Your task to perform on an android device: Toggle the flashlight Image 0: 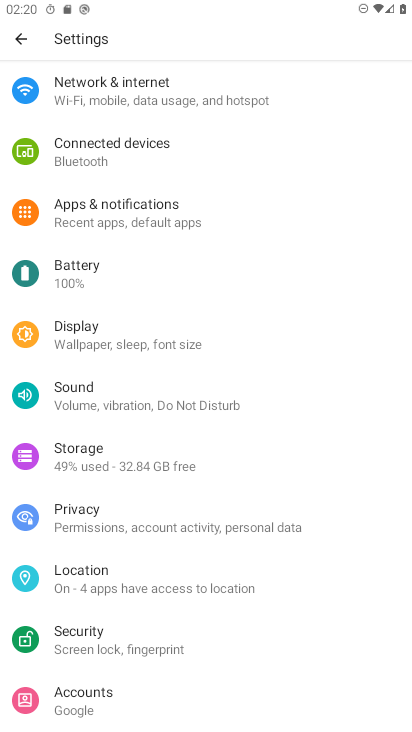
Step 0: click (89, 326)
Your task to perform on an android device: Toggle the flashlight Image 1: 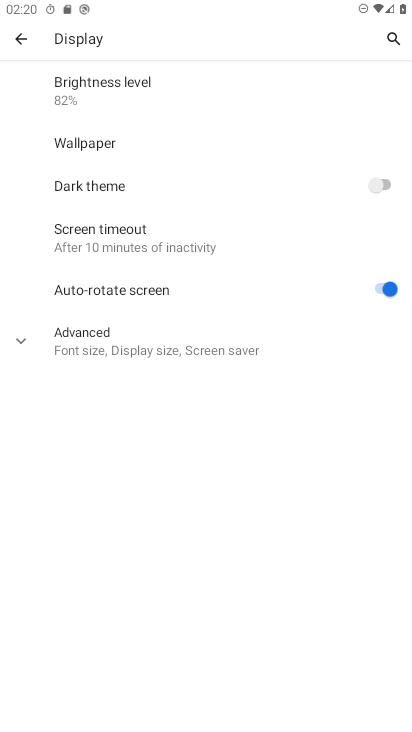
Step 1: click (124, 233)
Your task to perform on an android device: Toggle the flashlight Image 2: 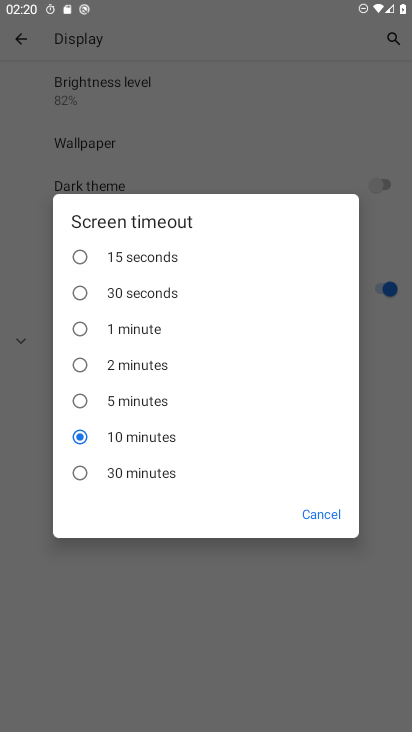
Step 2: task complete